Your task to perform on an android device: Go to battery settings Image 0: 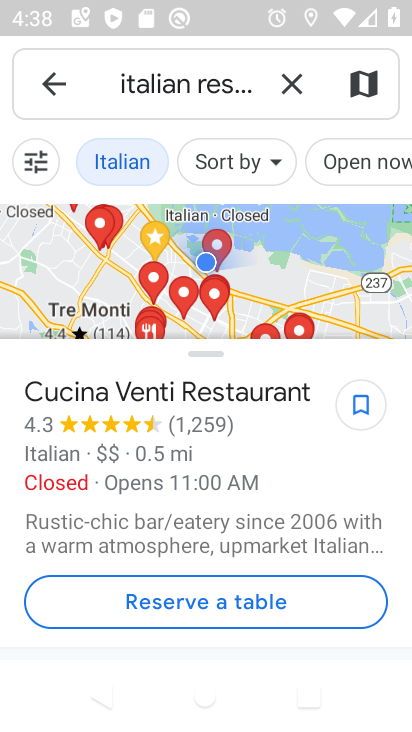
Step 0: press home button
Your task to perform on an android device: Go to battery settings Image 1: 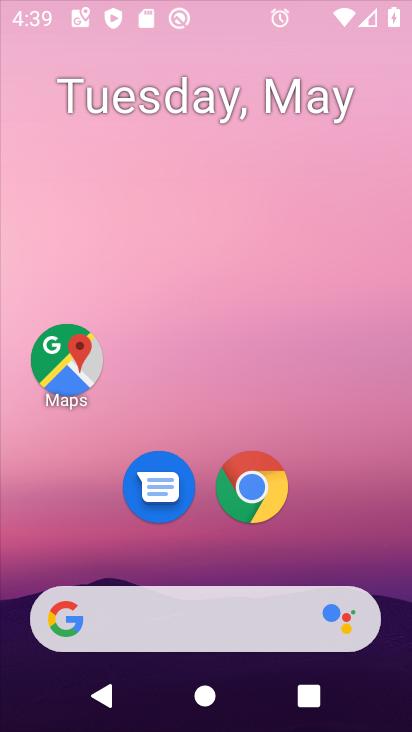
Step 1: drag from (319, 485) to (332, 95)
Your task to perform on an android device: Go to battery settings Image 2: 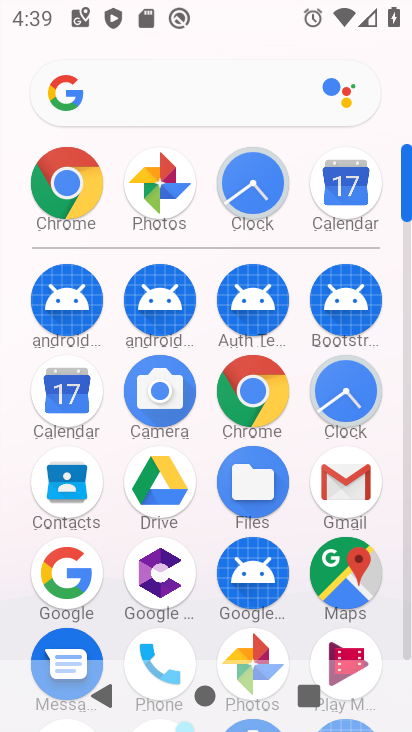
Step 2: drag from (271, 522) to (307, 242)
Your task to perform on an android device: Go to battery settings Image 3: 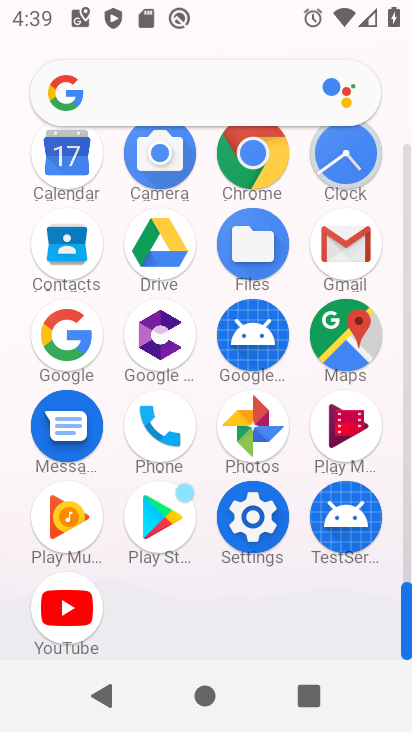
Step 3: click (248, 505)
Your task to perform on an android device: Go to battery settings Image 4: 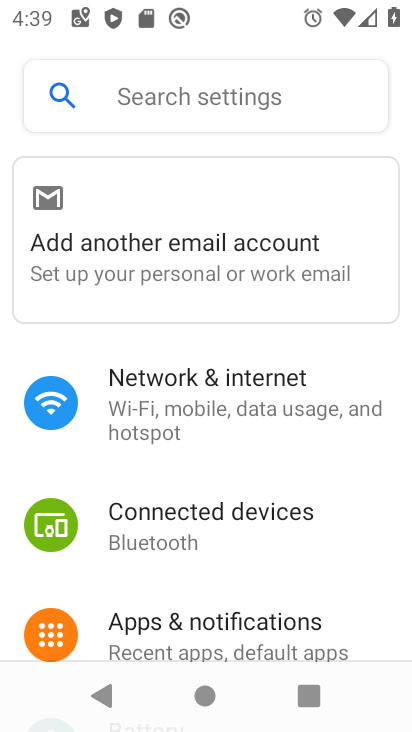
Step 4: drag from (243, 521) to (277, 197)
Your task to perform on an android device: Go to battery settings Image 5: 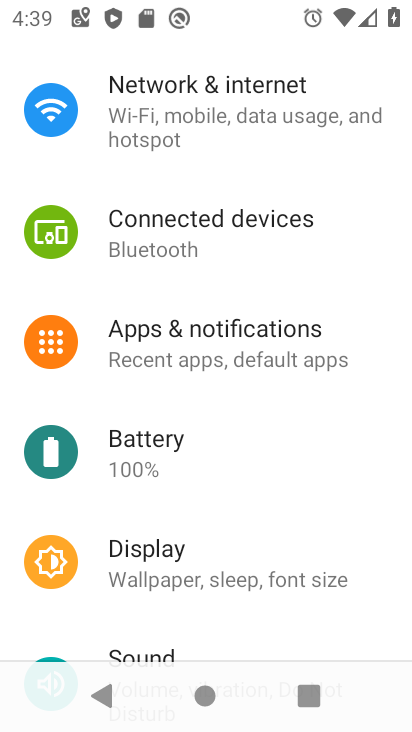
Step 5: click (152, 457)
Your task to perform on an android device: Go to battery settings Image 6: 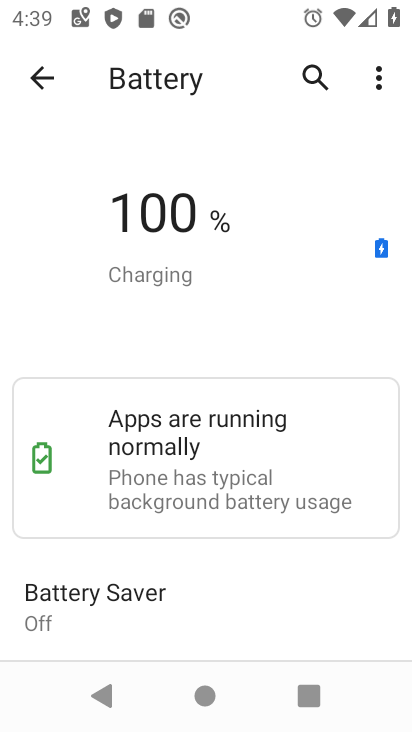
Step 6: task complete